Your task to perform on an android device: manage bookmarks in the chrome app Image 0: 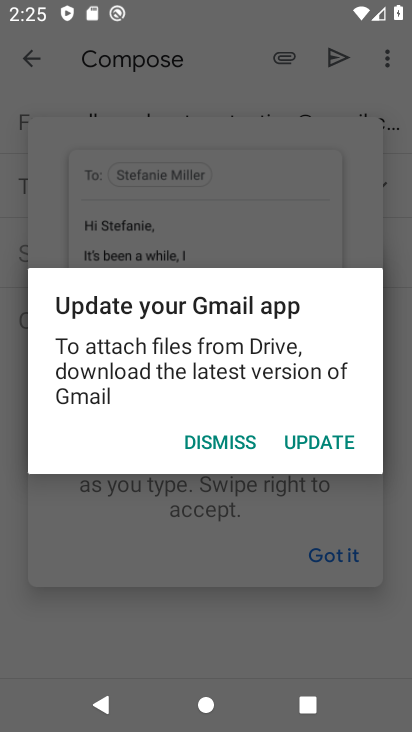
Step 0: press home button
Your task to perform on an android device: manage bookmarks in the chrome app Image 1: 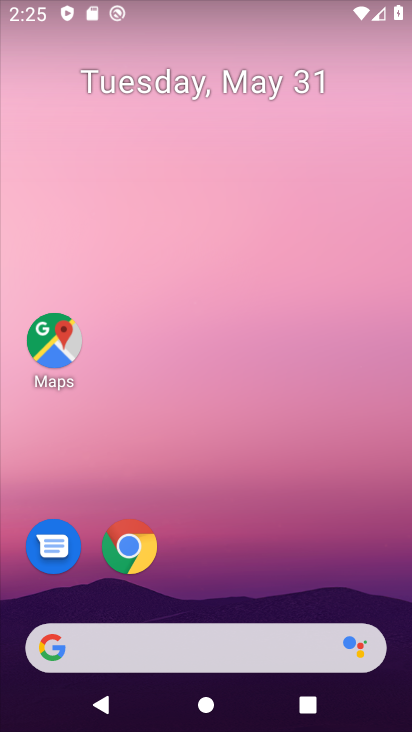
Step 1: click (134, 541)
Your task to perform on an android device: manage bookmarks in the chrome app Image 2: 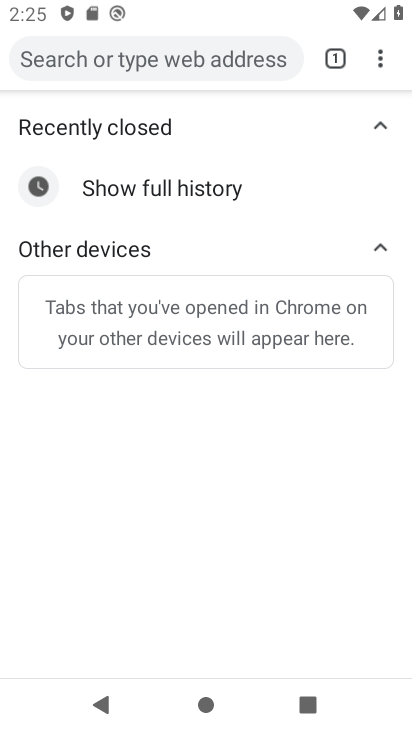
Step 2: click (379, 57)
Your task to perform on an android device: manage bookmarks in the chrome app Image 3: 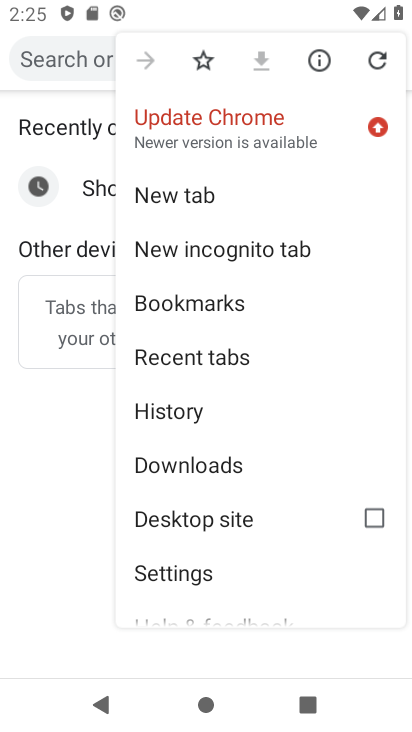
Step 3: click (210, 302)
Your task to perform on an android device: manage bookmarks in the chrome app Image 4: 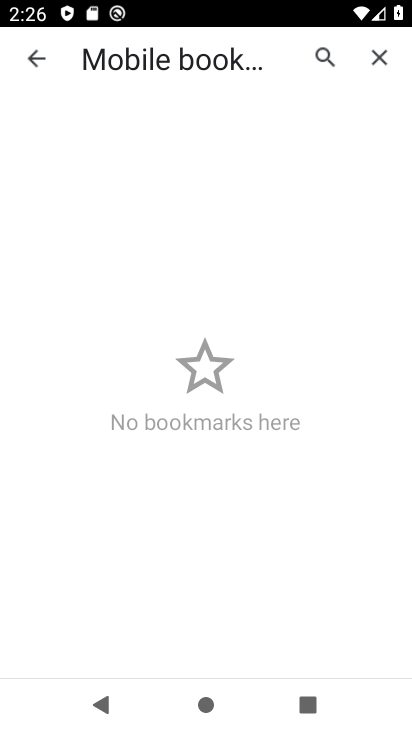
Step 4: task complete